Your task to perform on an android device: clear history in the chrome app Image 0: 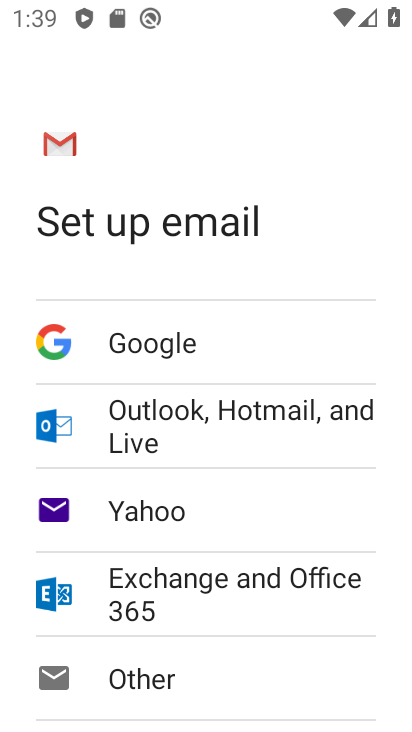
Step 0: drag from (384, 580) to (370, 241)
Your task to perform on an android device: clear history in the chrome app Image 1: 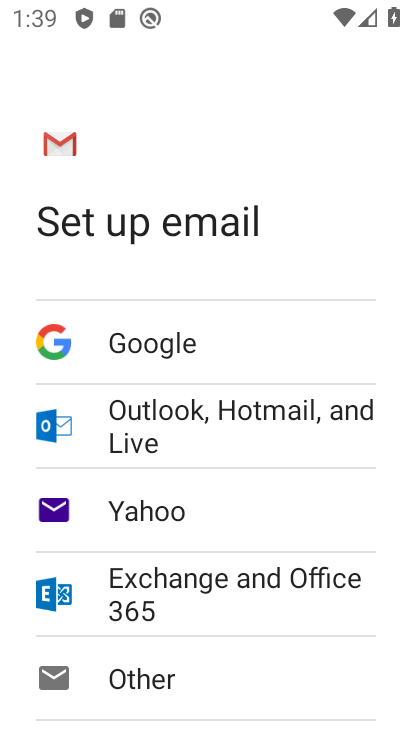
Step 1: press home button
Your task to perform on an android device: clear history in the chrome app Image 2: 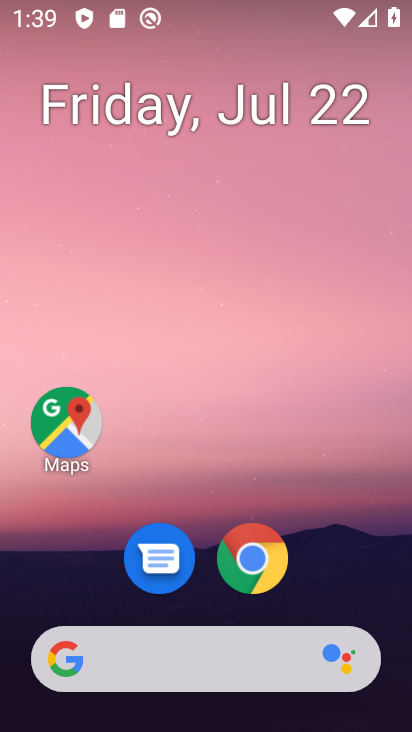
Step 2: drag from (358, 605) to (257, 92)
Your task to perform on an android device: clear history in the chrome app Image 3: 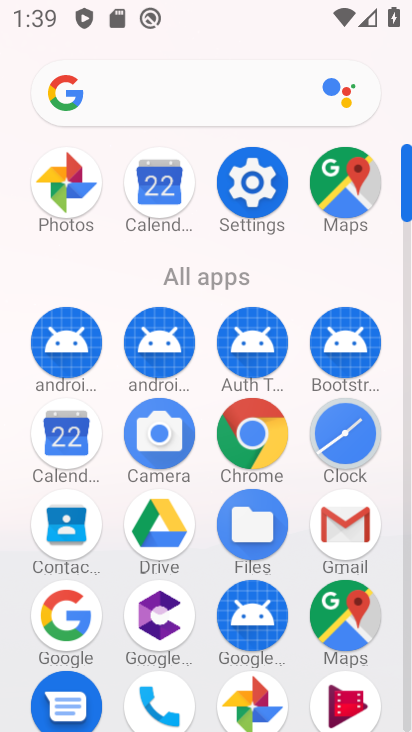
Step 3: click (272, 434)
Your task to perform on an android device: clear history in the chrome app Image 4: 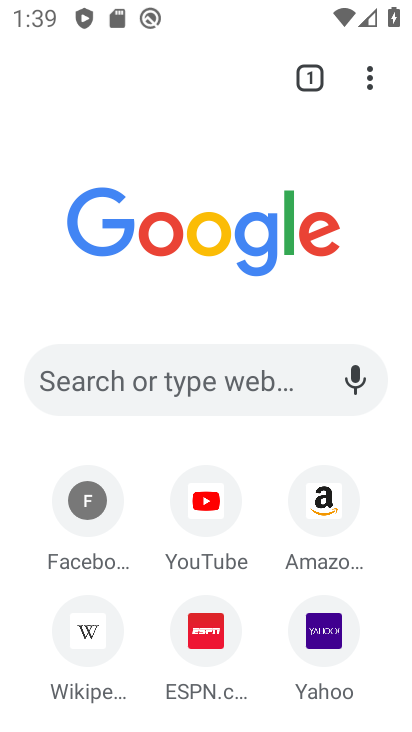
Step 4: click (378, 79)
Your task to perform on an android device: clear history in the chrome app Image 5: 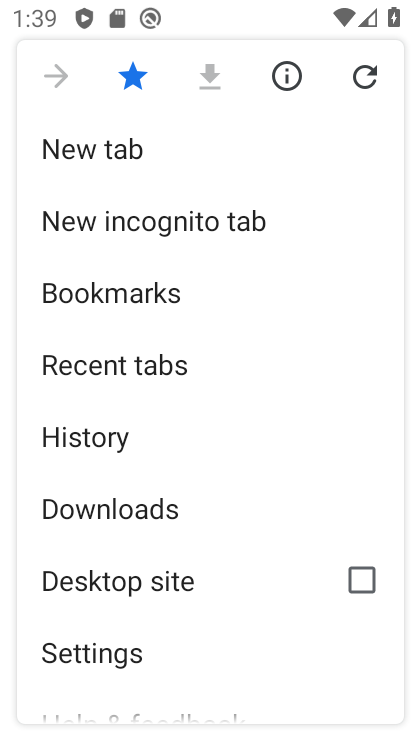
Step 5: click (153, 420)
Your task to perform on an android device: clear history in the chrome app Image 6: 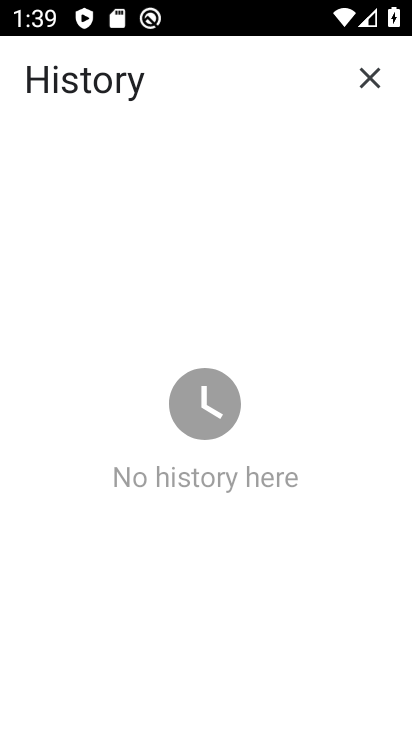
Step 6: task complete